Your task to perform on an android device: turn off translation in the chrome app Image 0: 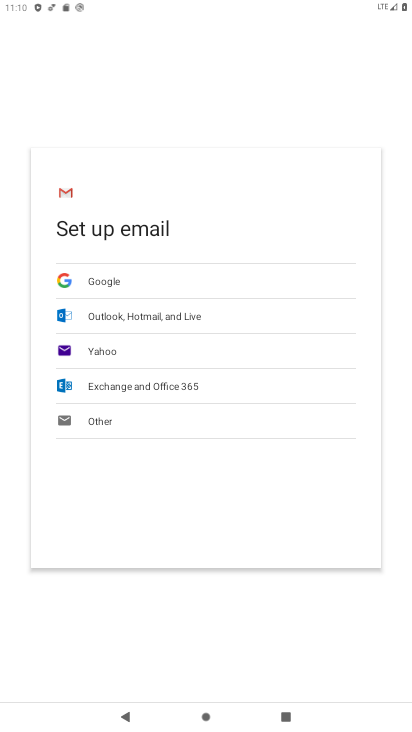
Step 0: press home button
Your task to perform on an android device: turn off translation in the chrome app Image 1: 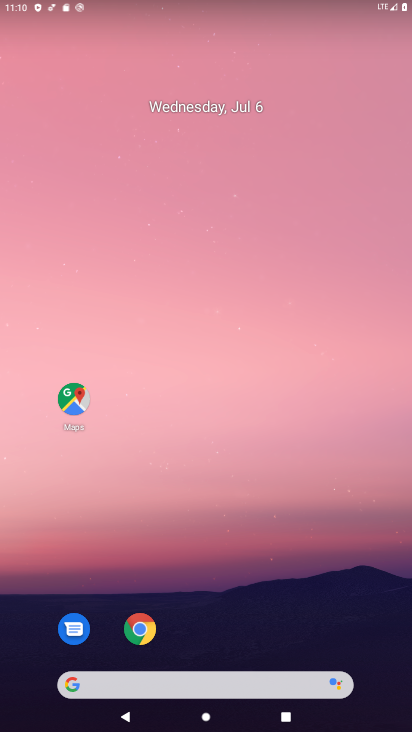
Step 1: drag from (218, 646) to (177, 206)
Your task to perform on an android device: turn off translation in the chrome app Image 2: 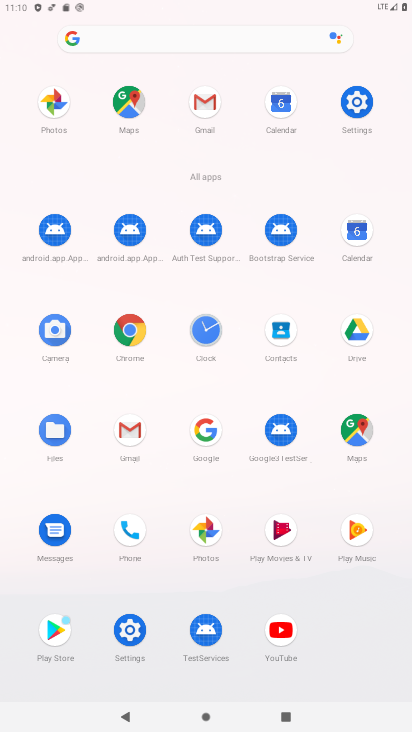
Step 2: click (125, 338)
Your task to perform on an android device: turn off translation in the chrome app Image 3: 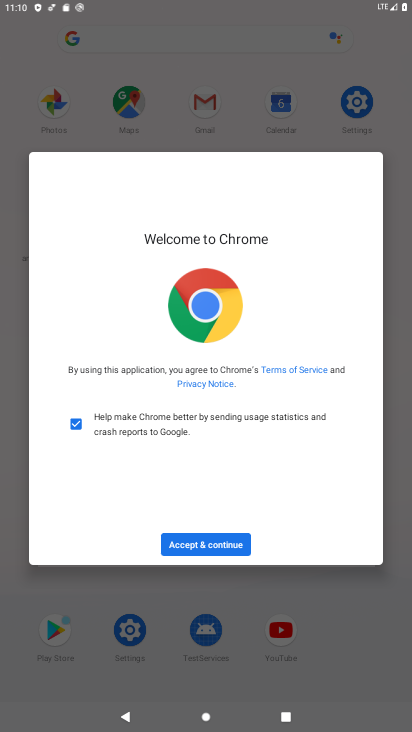
Step 3: click (234, 544)
Your task to perform on an android device: turn off translation in the chrome app Image 4: 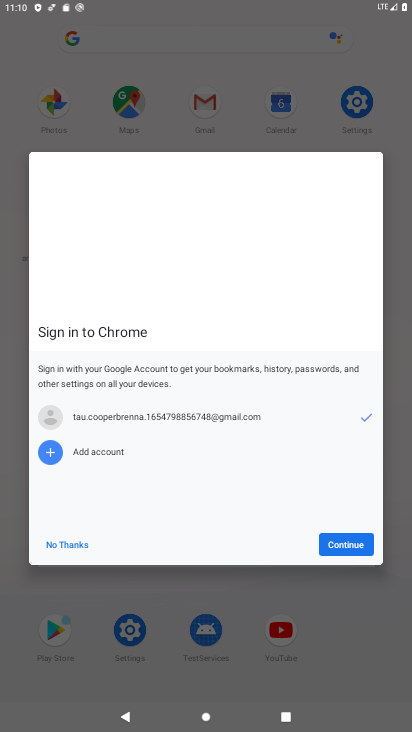
Step 4: click (349, 536)
Your task to perform on an android device: turn off translation in the chrome app Image 5: 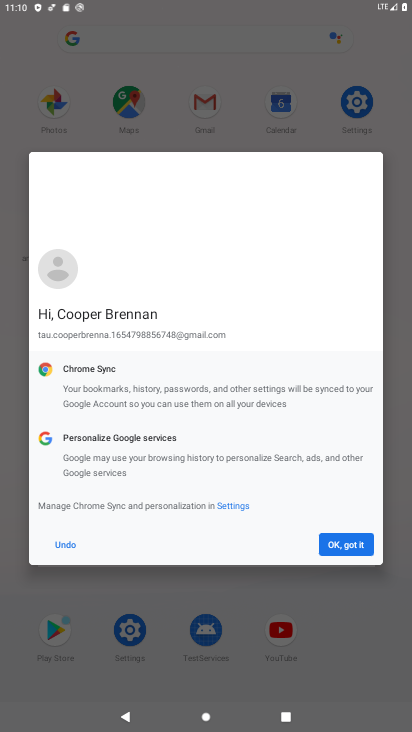
Step 5: click (340, 537)
Your task to perform on an android device: turn off translation in the chrome app Image 6: 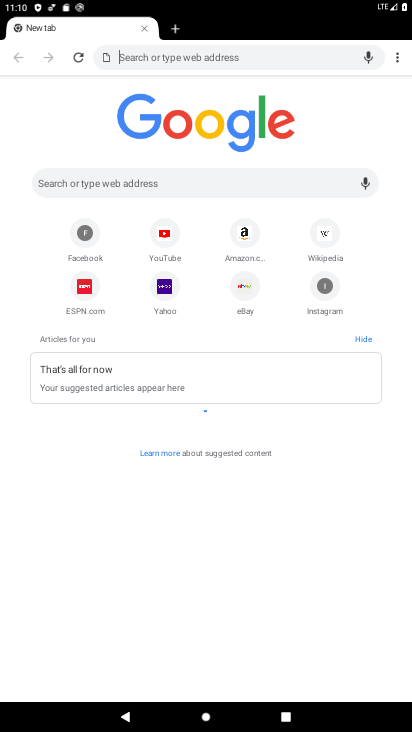
Step 6: click (395, 57)
Your task to perform on an android device: turn off translation in the chrome app Image 7: 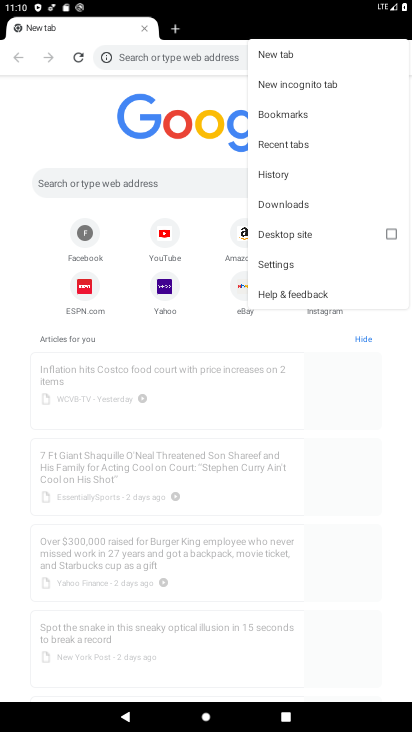
Step 7: click (301, 258)
Your task to perform on an android device: turn off translation in the chrome app Image 8: 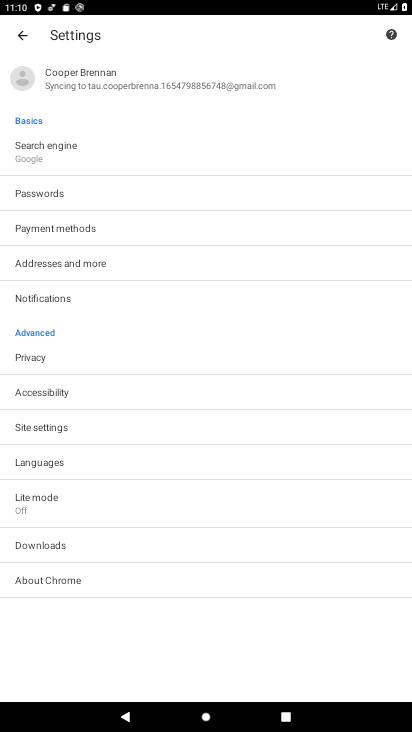
Step 8: click (85, 459)
Your task to perform on an android device: turn off translation in the chrome app Image 9: 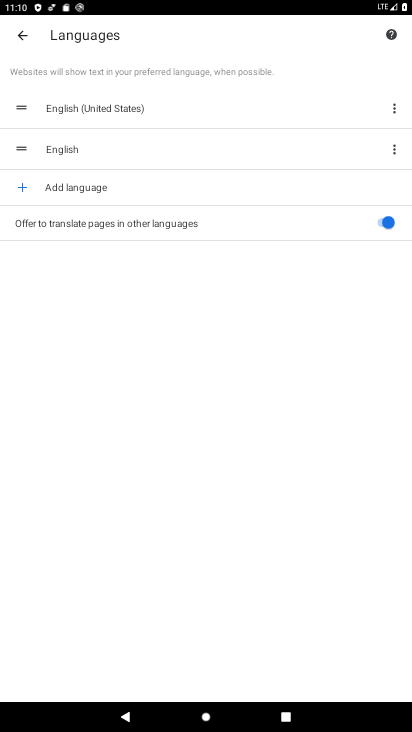
Step 9: click (387, 223)
Your task to perform on an android device: turn off translation in the chrome app Image 10: 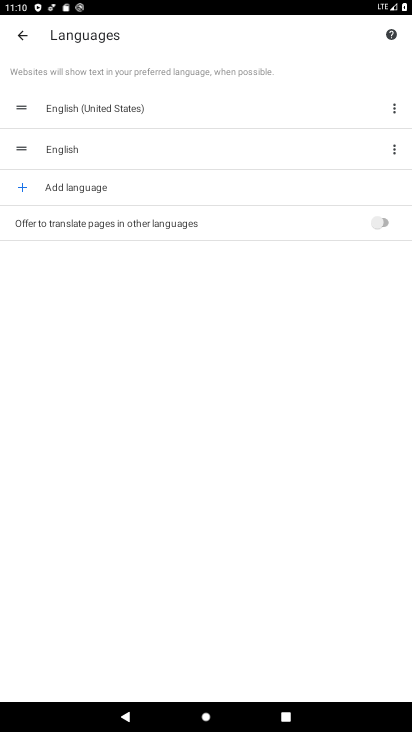
Step 10: task complete